Your task to perform on an android device: Search for Italian restaurants on Maps Image 0: 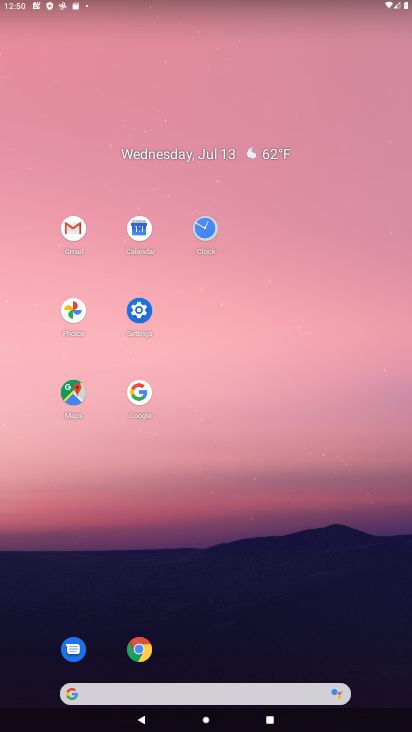
Step 0: click (75, 402)
Your task to perform on an android device: Search for Italian restaurants on Maps Image 1: 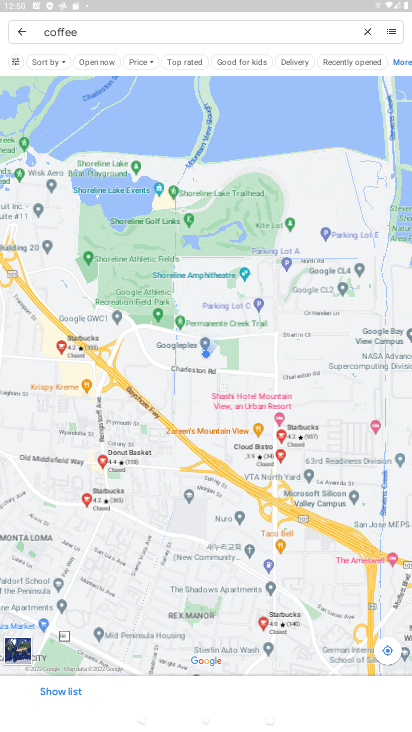
Step 1: click (215, 30)
Your task to perform on an android device: Search for Italian restaurants on Maps Image 2: 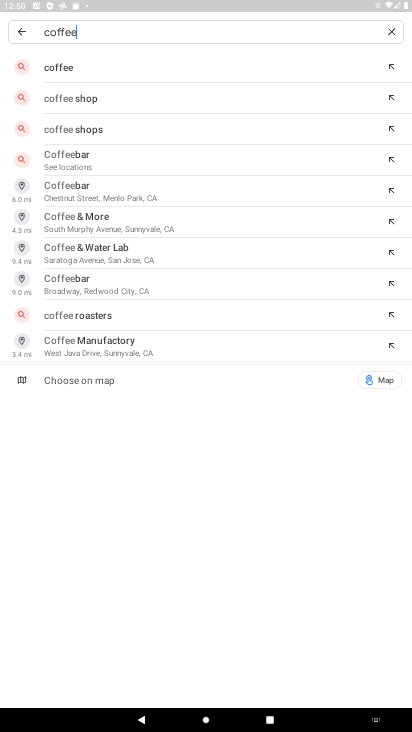
Step 2: click (393, 30)
Your task to perform on an android device: Search for Italian restaurants on Maps Image 3: 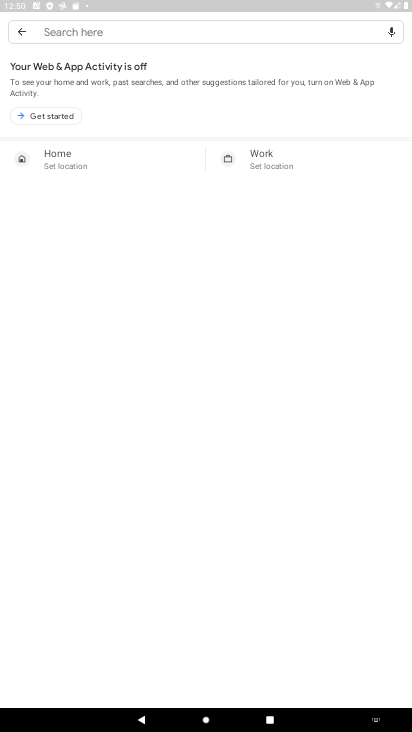
Step 3: type "italian restaurants"
Your task to perform on an android device: Search for Italian restaurants on Maps Image 4: 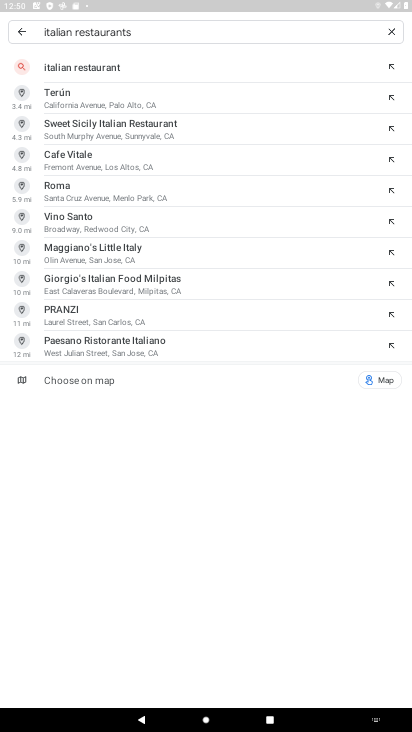
Step 4: click (152, 68)
Your task to perform on an android device: Search for Italian restaurants on Maps Image 5: 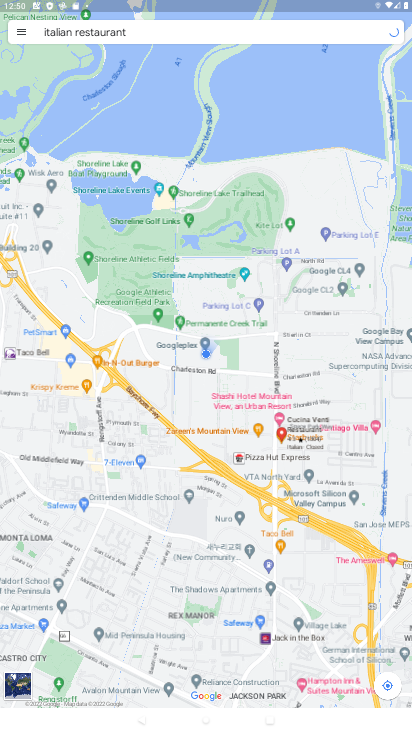
Step 5: task complete